Your task to perform on an android device: View the shopping cart on walmart. Image 0: 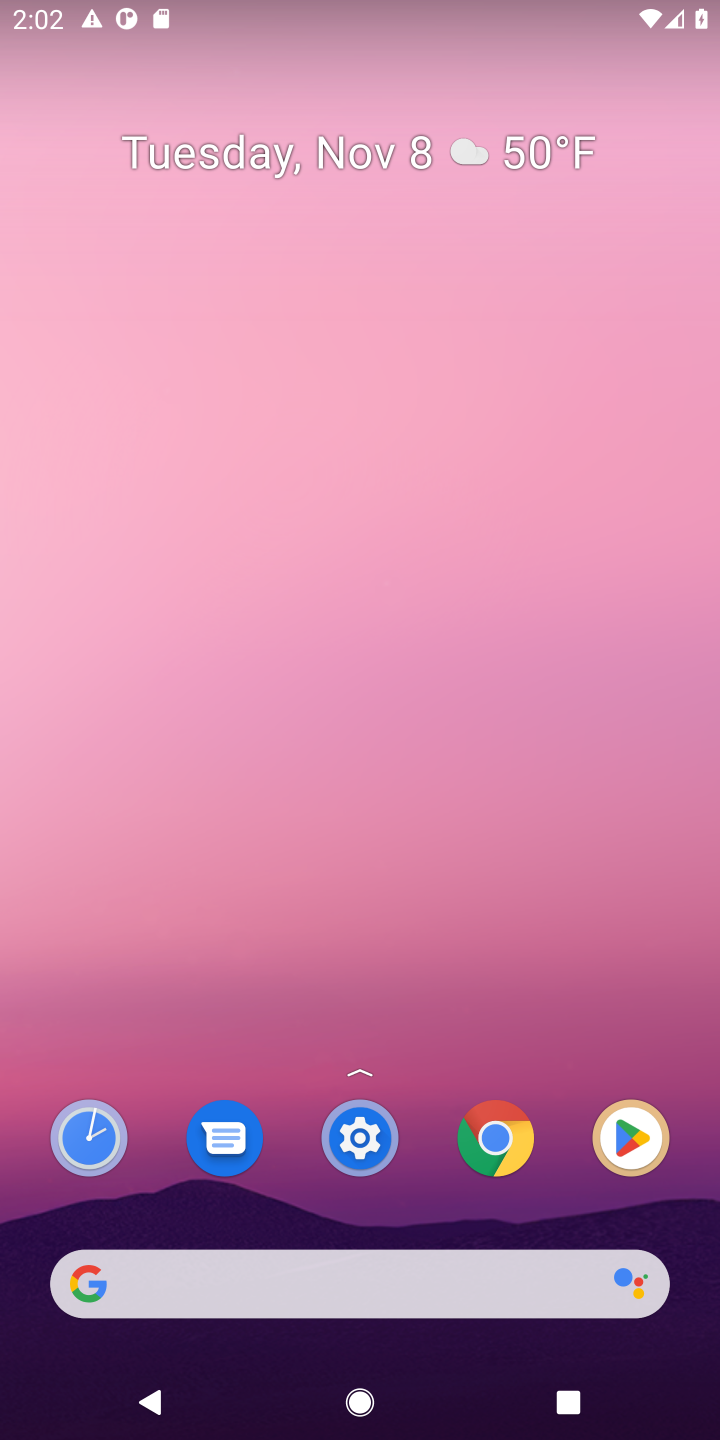
Step 0: click (291, 1304)
Your task to perform on an android device: View the shopping cart on walmart. Image 1: 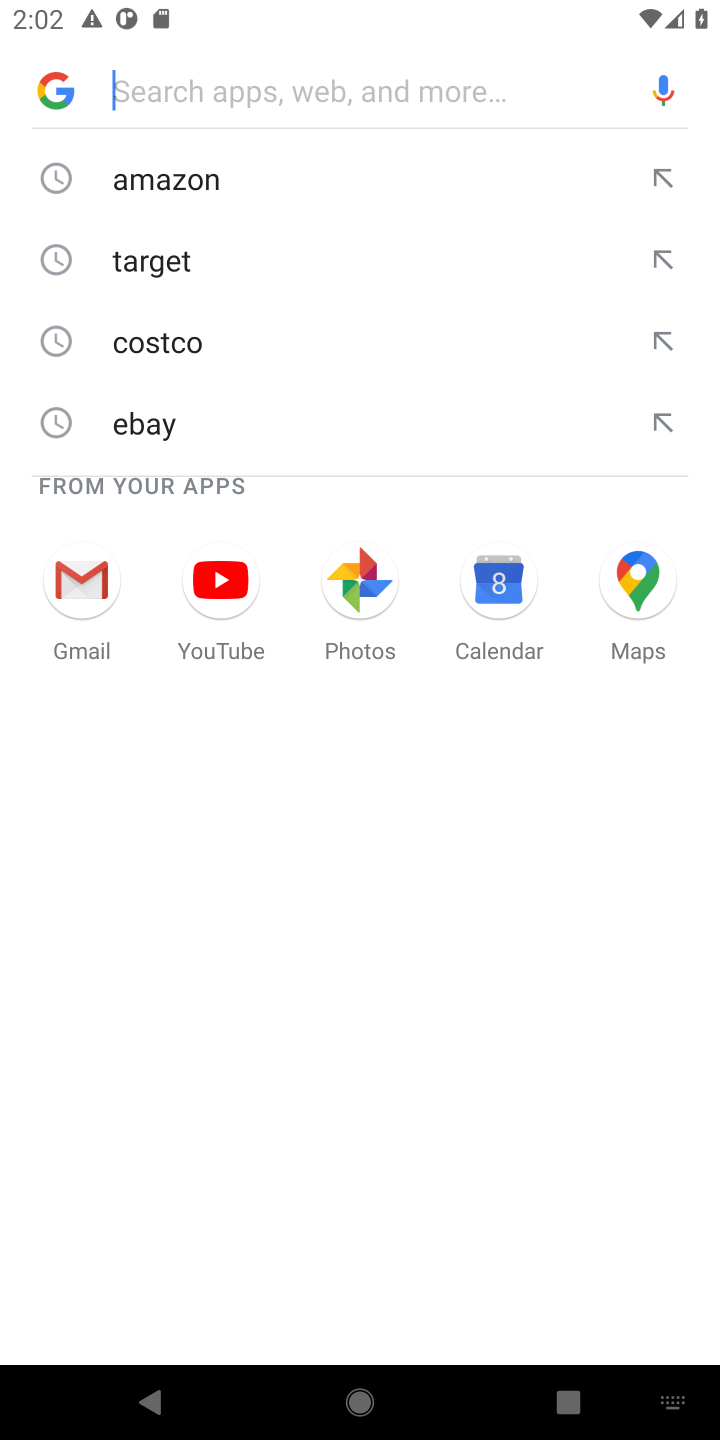
Step 1: type "walmart"
Your task to perform on an android device: View the shopping cart on walmart. Image 2: 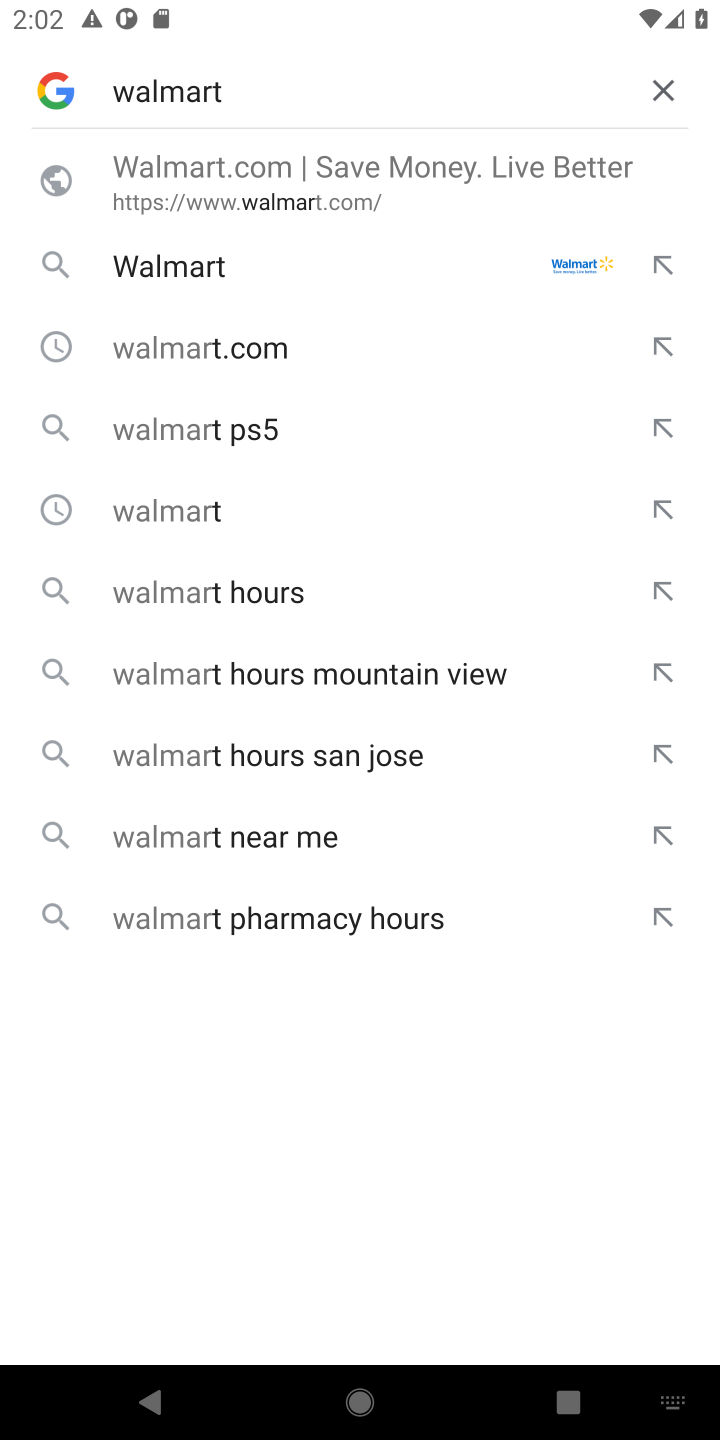
Step 2: click (240, 198)
Your task to perform on an android device: View the shopping cart on walmart. Image 3: 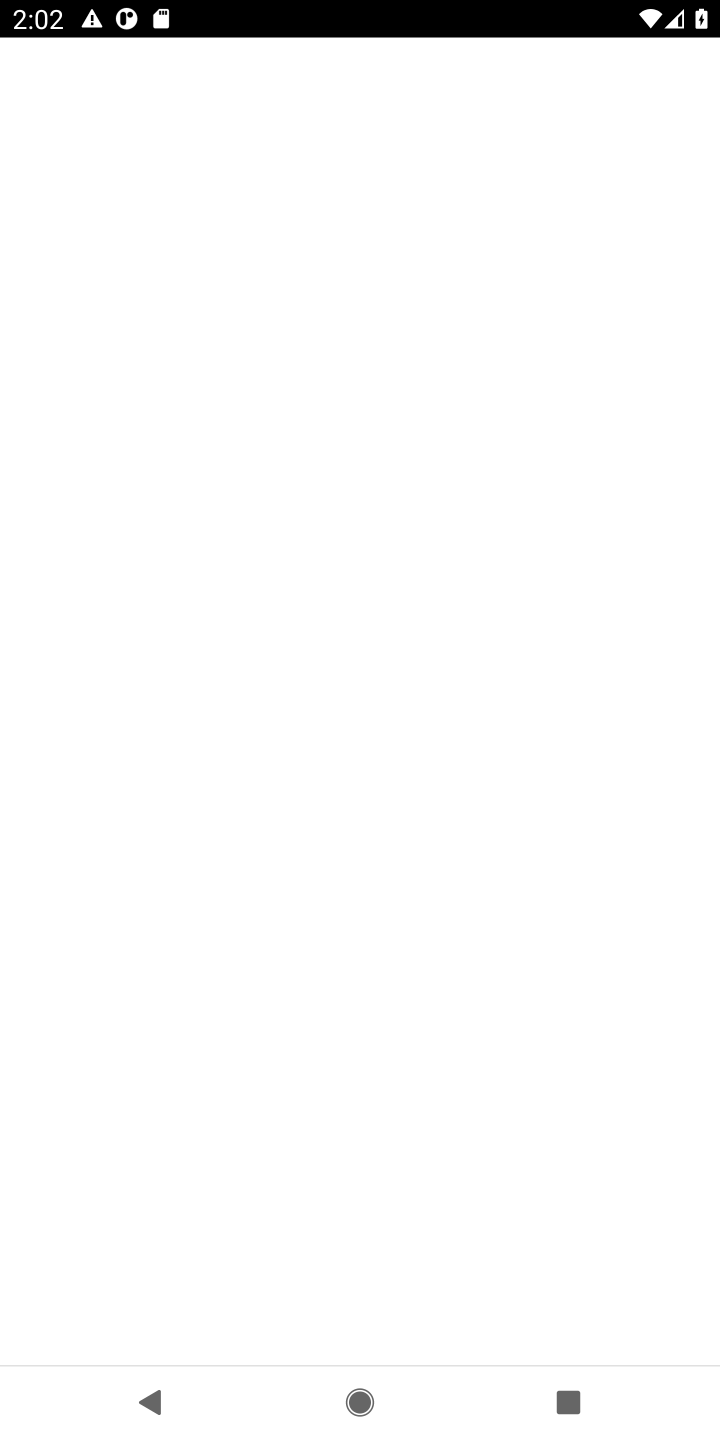
Step 3: task complete